Your task to perform on an android device: turn on bluetooth scan Image 0: 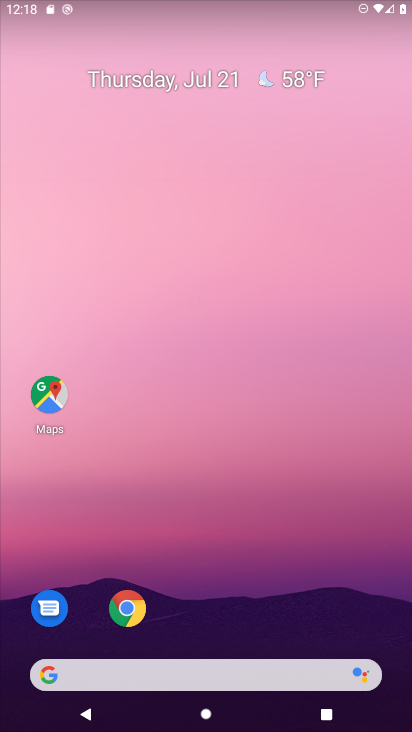
Step 0: press home button
Your task to perform on an android device: turn on bluetooth scan Image 1: 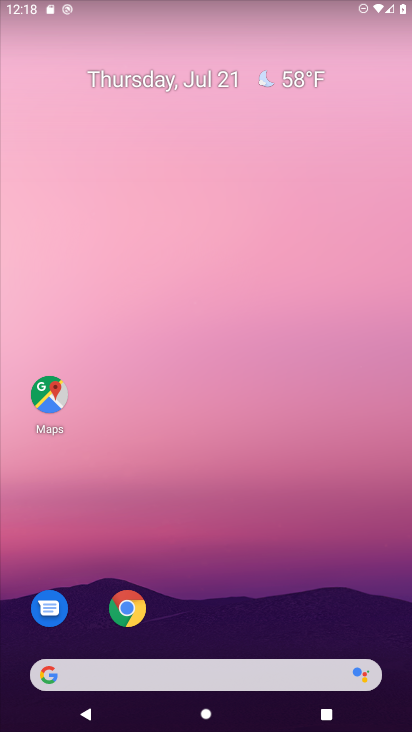
Step 1: drag from (306, 609) to (243, 82)
Your task to perform on an android device: turn on bluetooth scan Image 2: 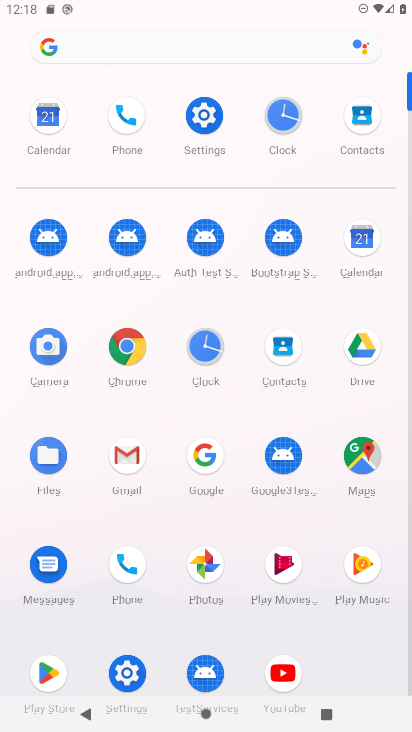
Step 2: click (201, 102)
Your task to perform on an android device: turn on bluetooth scan Image 3: 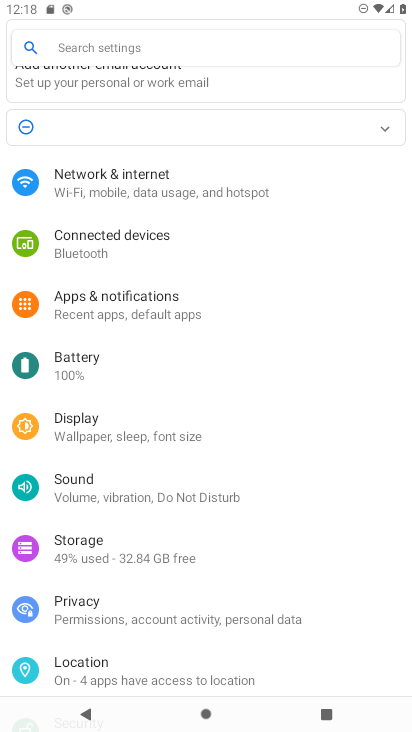
Step 3: click (136, 669)
Your task to perform on an android device: turn on bluetooth scan Image 4: 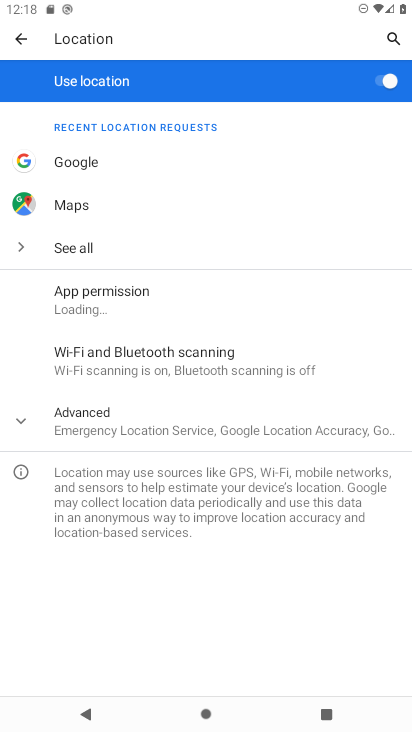
Step 4: click (98, 362)
Your task to perform on an android device: turn on bluetooth scan Image 5: 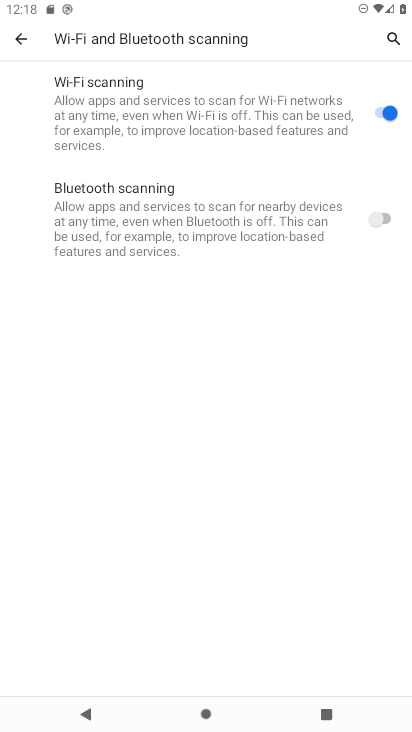
Step 5: click (384, 215)
Your task to perform on an android device: turn on bluetooth scan Image 6: 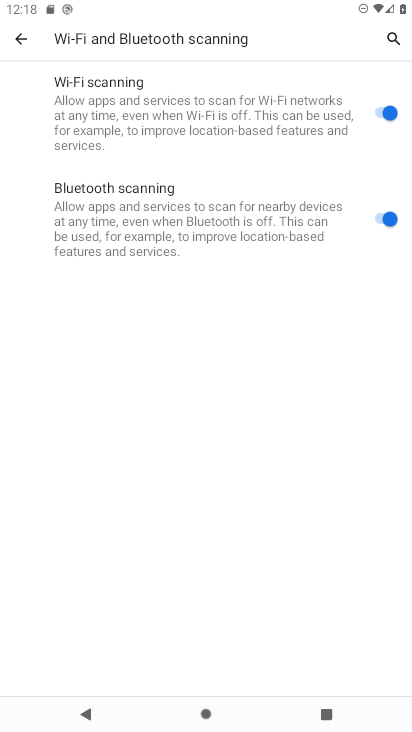
Step 6: task complete